Your task to perform on an android device: Go to privacy settings Image 0: 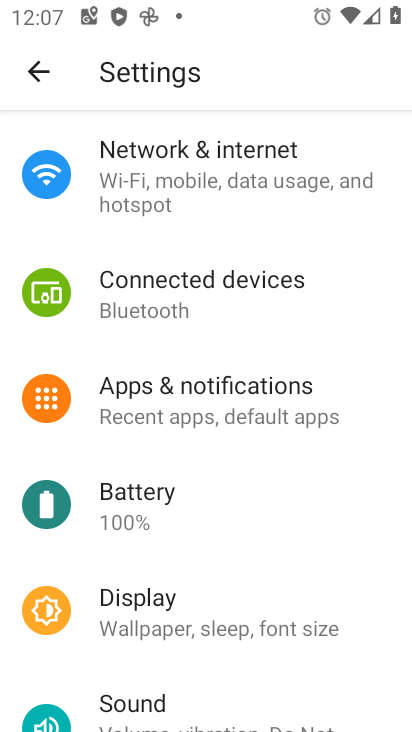
Step 0: press home button
Your task to perform on an android device: Go to privacy settings Image 1: 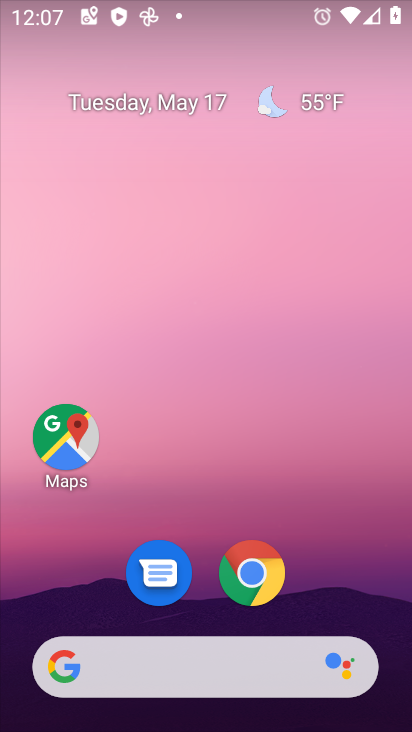
Step 1: drag from (351, 626) to (252, 235)
Your task to perform on an android device: Go to privacy settings Image 2: 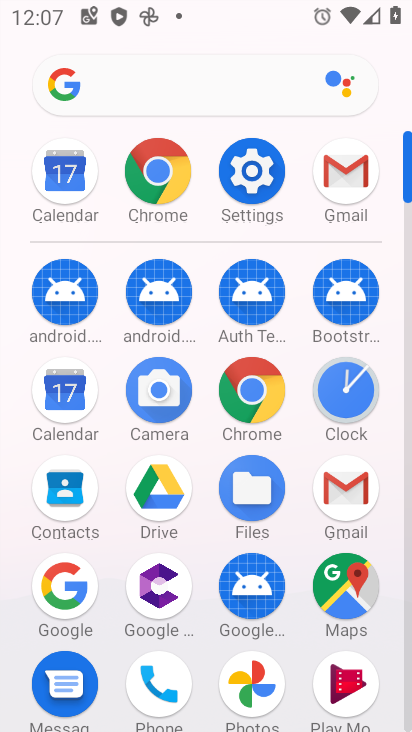
Step 2: click (256, 166)
Your task to perform on an android device: Go to privacy settings Image 3: 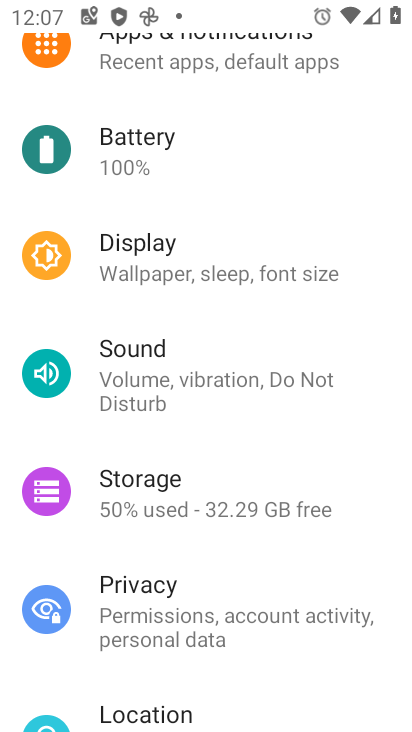
Step 3: click (192, 594)
Your task to perform on an android device: Go to privacy settings Image 4: 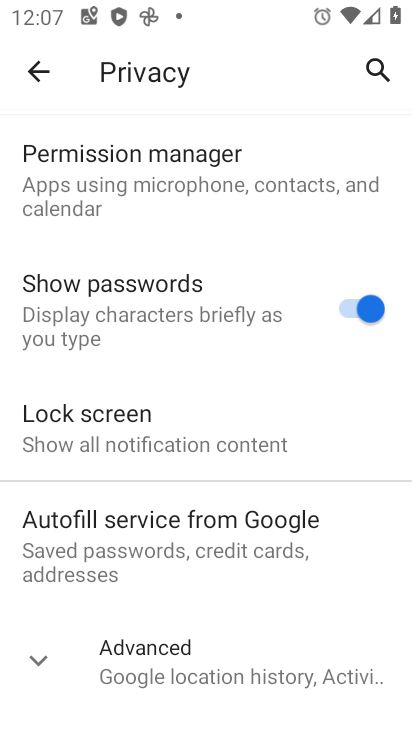
Step 4: task complete